Your task to perform on an android device: turn on the 24-hour format for clock Image 0: 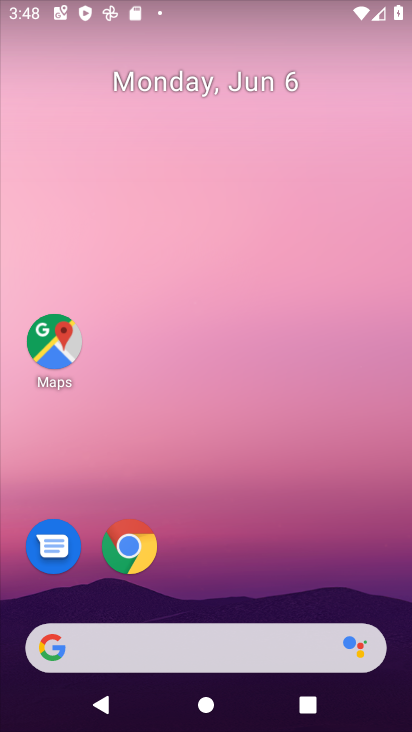
Step 0: drag from (289, 587) to (246, 69)
Your task to perform on an android device: turn on the 24-hour format for clock Image 1: 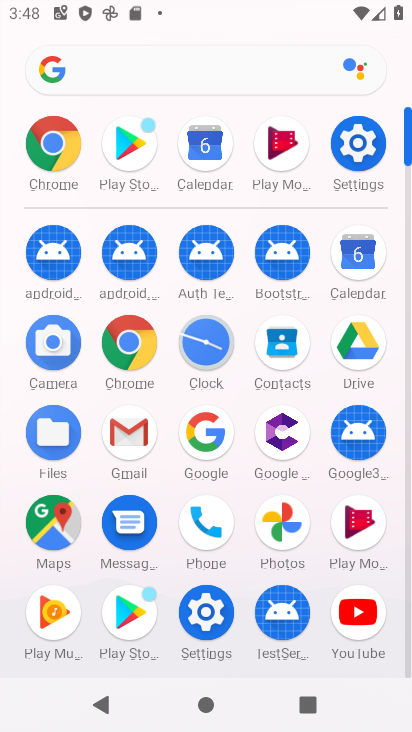
Step 1: click (199, 356)
Your task to perform on an android device: turn on the 24-hour format for clock Image 2: 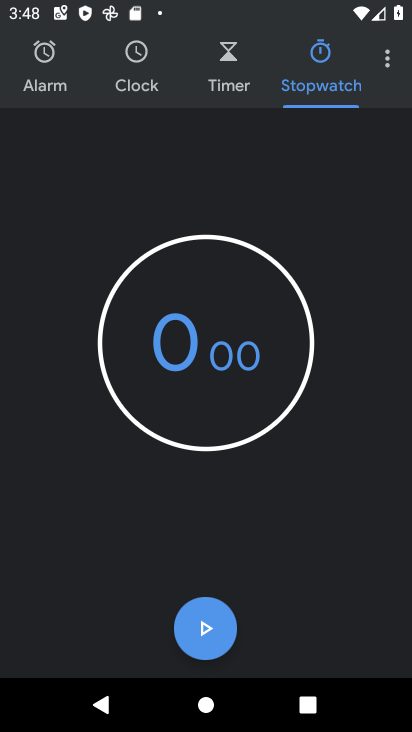
Step 2: click (130, 93)
Your task to perform on an android device: turn on the 24-hour format for clock Image 3: 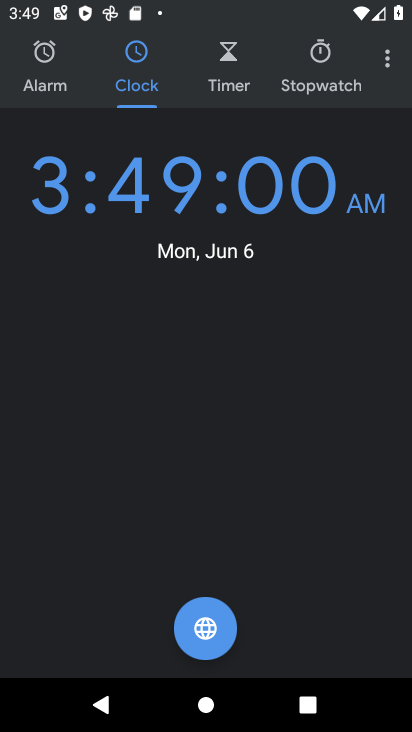
Step 3: click (391, 47)
Your task to perform on an android device: turn on the 24-hour format for clock Image 4: 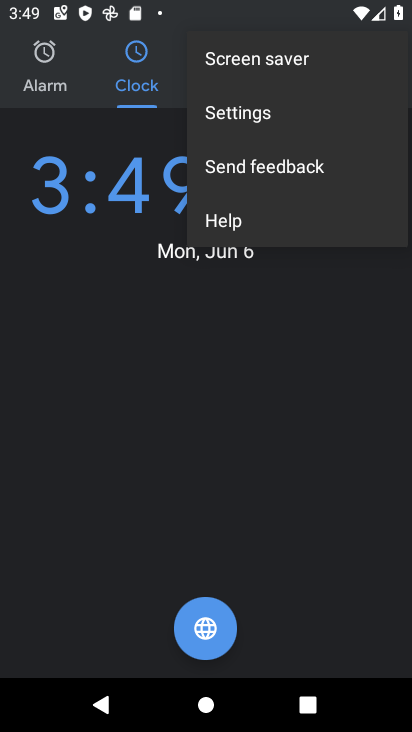
Step 4: click (279, 117)
Your task to perform on an android device: turn on the 24-hour format for clock Image 5: 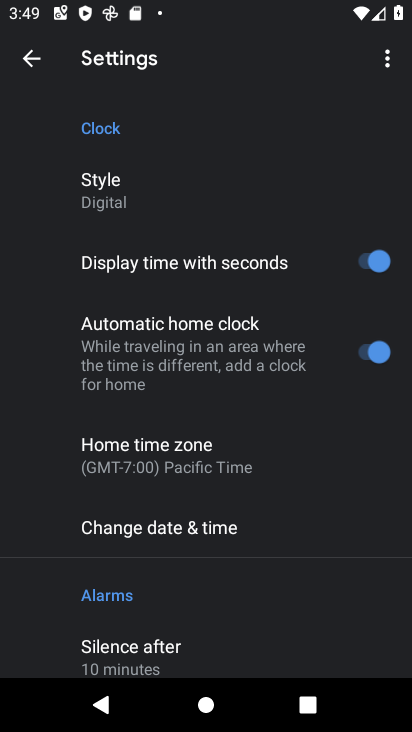
Step 5: click (217, 547)
Your task to perform on an android device: turn on the 24-hour format for clock Image 6: 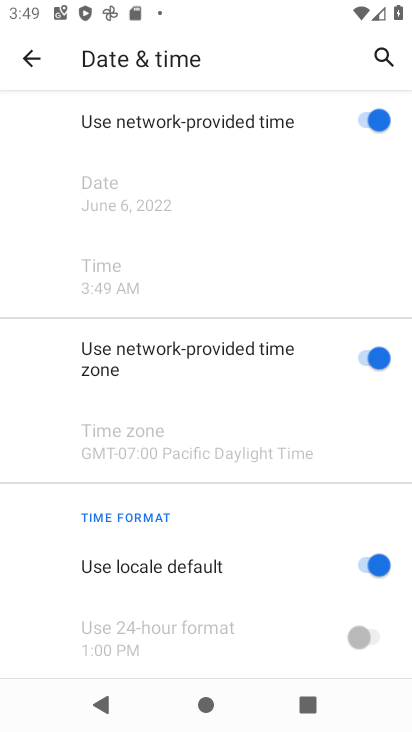
Step 6: click (197, 636)
Your task to perform on an android device: turn on the 24-hour format for clock Image 7: 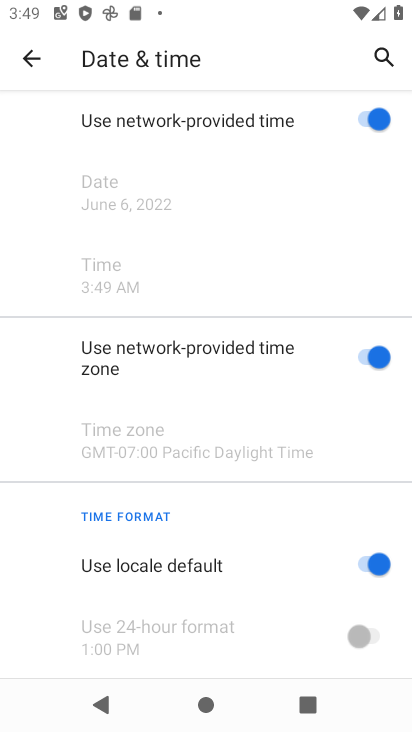
Step 7: click (381, 544)
Your task to perform on an android device: turn on the 24-hour format for clock Image 8: 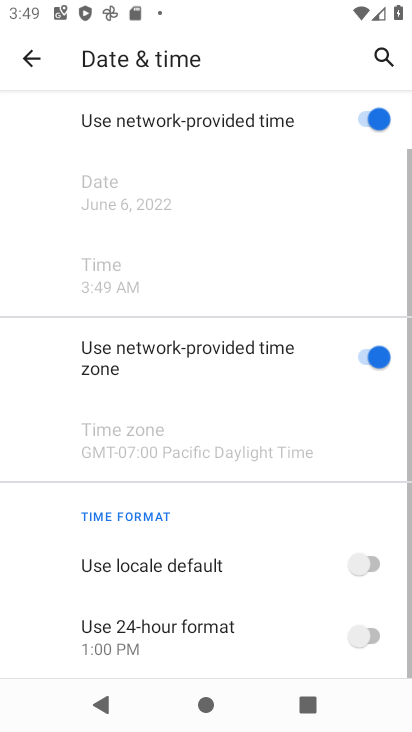
Step 8: click (361, 623)
Your task to perform on an android device: turn on the 24-hour format for clock Image 9: 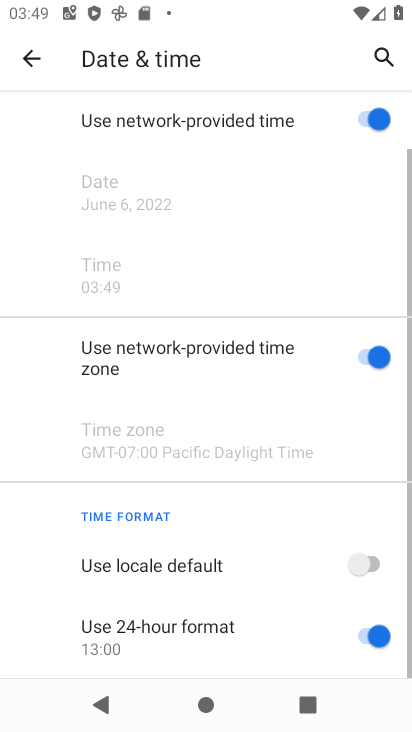
Step 9: task complete